Your task to perform on an android device: open app "Facebook" Image 0: 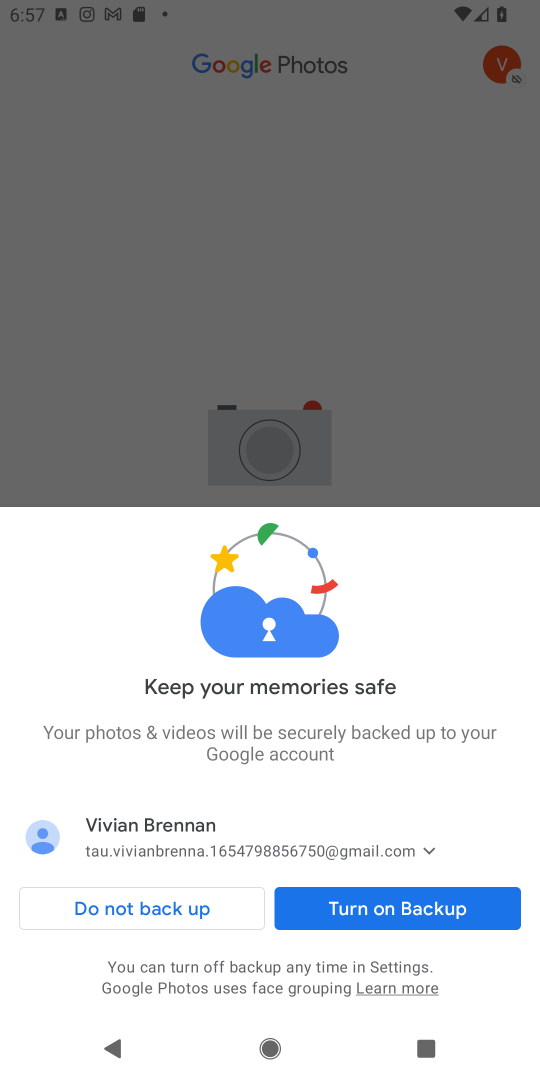
Step 0: press home button
Your task to perform on an android device: open app "Facebook" Image 1: 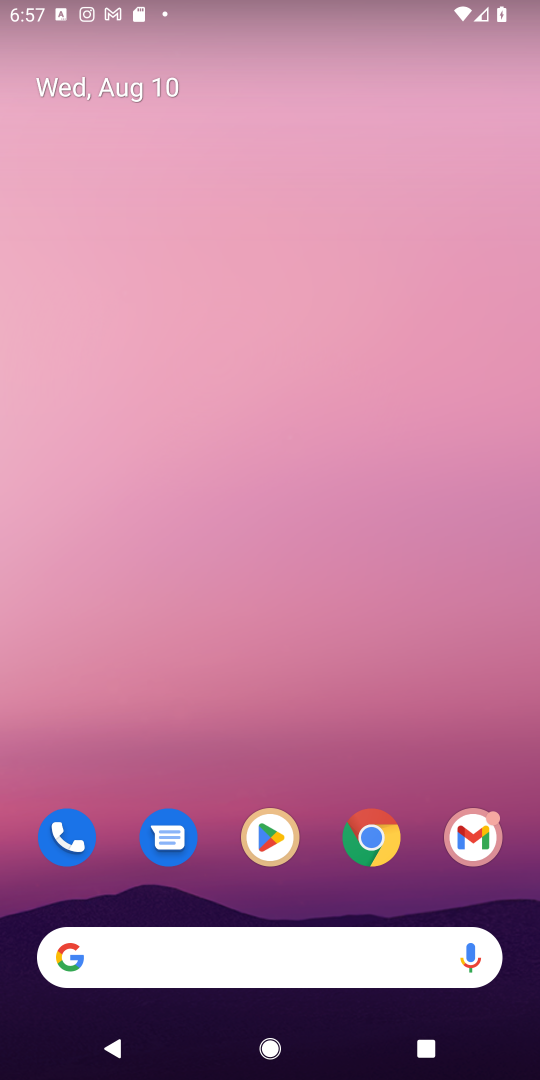
Step 1: click (266, 839)
Your task to perform on an android device: open app "Facebook" Image 2: 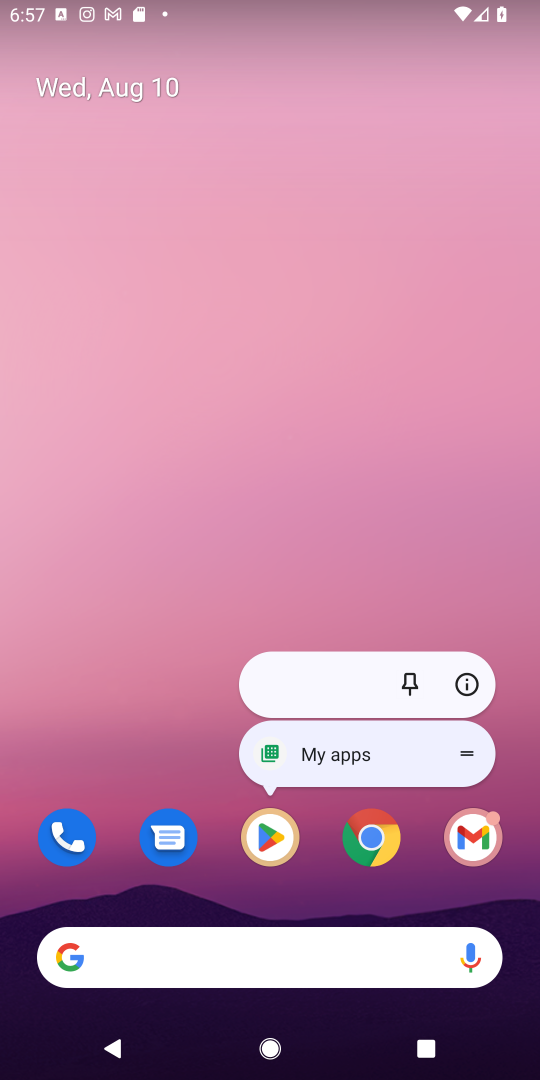
Step 2: click (259, 845)
Your task to perform on an android device: open app "Facebook" Image 3: 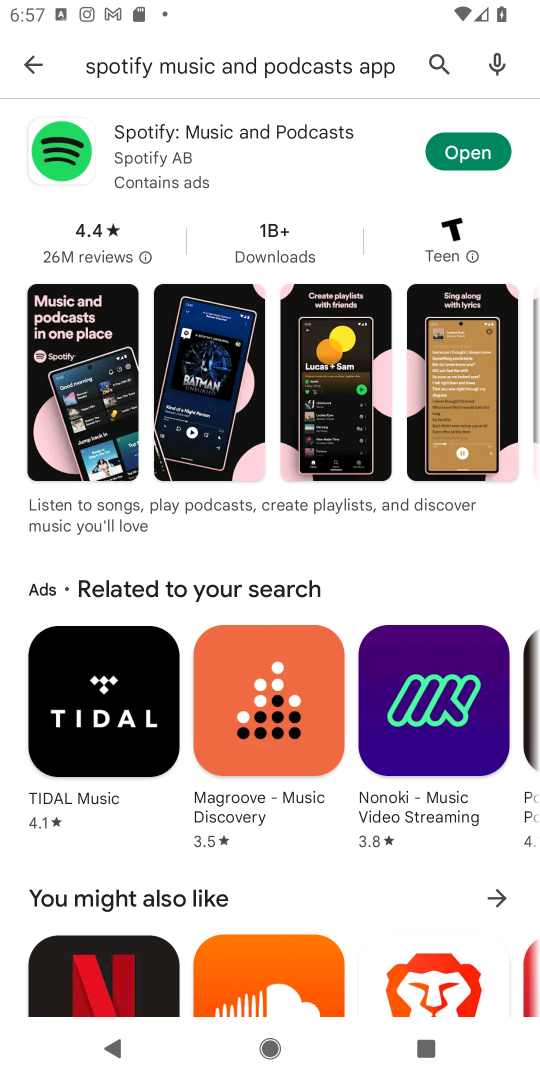
Step 3: click (432, 55)
Your task to perform on an android device: open app "Facebook" Image 4: 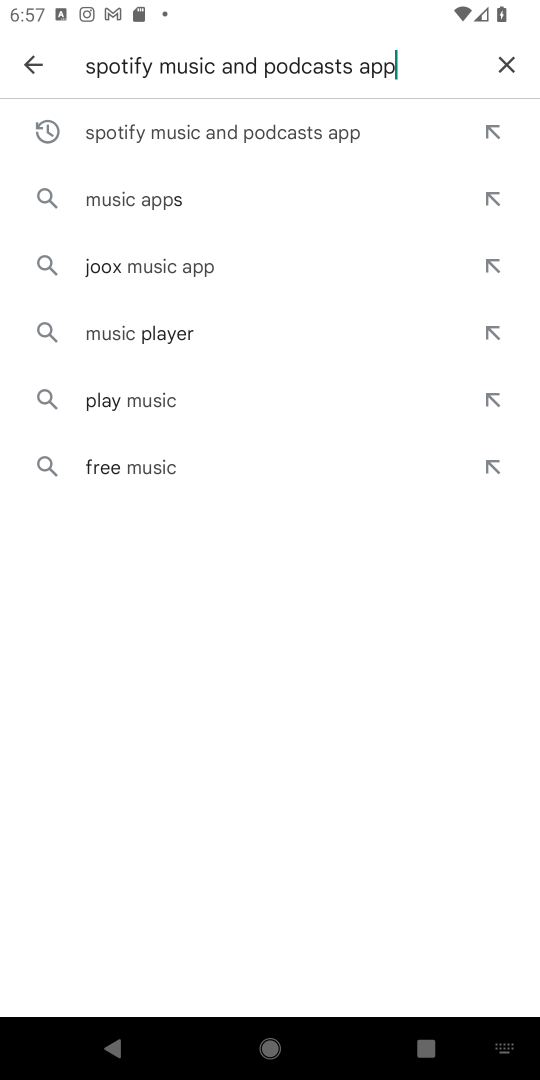
Step 4: click (506, 61)
Your task to perform on an android device: open app "Facebook" Image 5: 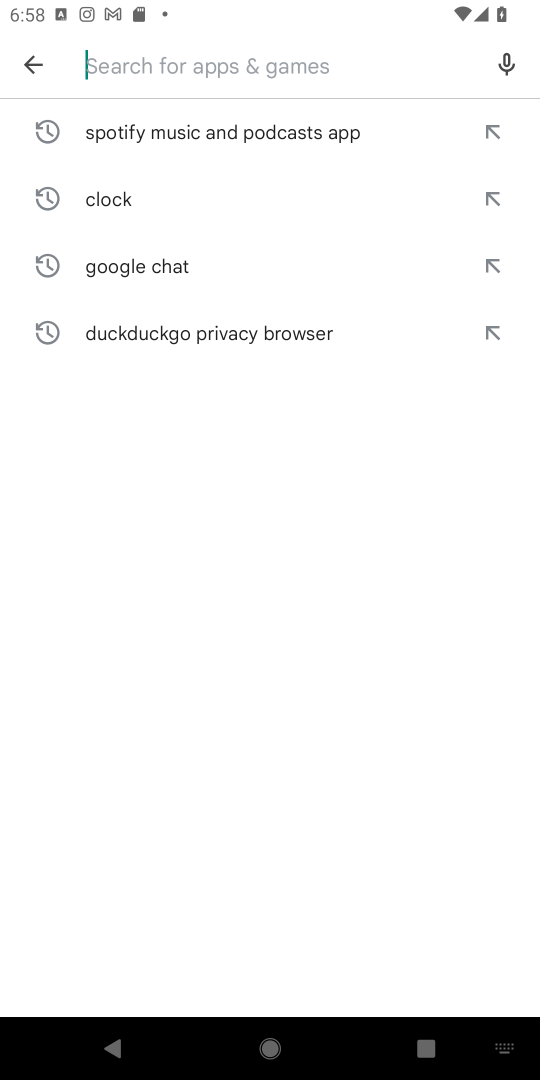
Step 5: type "Facebook"
Your task to perform on an android device: open app "Facebook" Image 6: 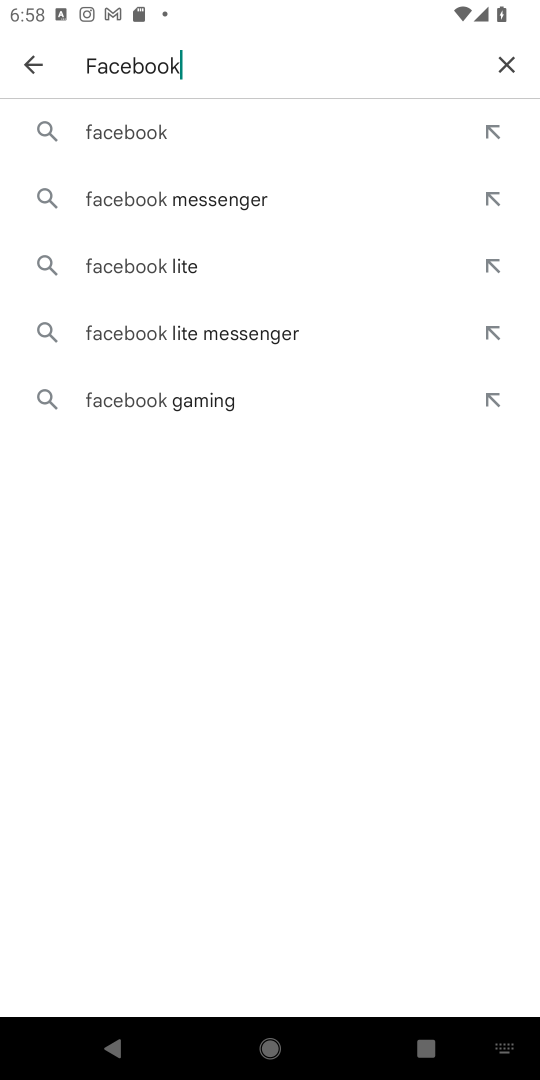
Step 6: click (111, 129)
Your task to perform on an android device: open app "Facebook" Image 7: 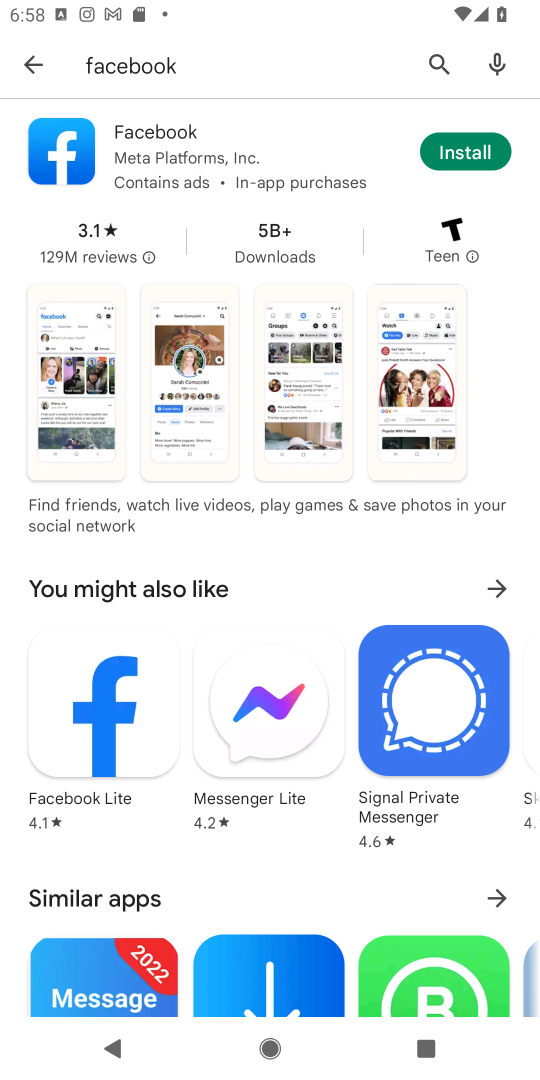
Step 7: task complete